Your task to perform on an android device: What is the news today? Image 0: 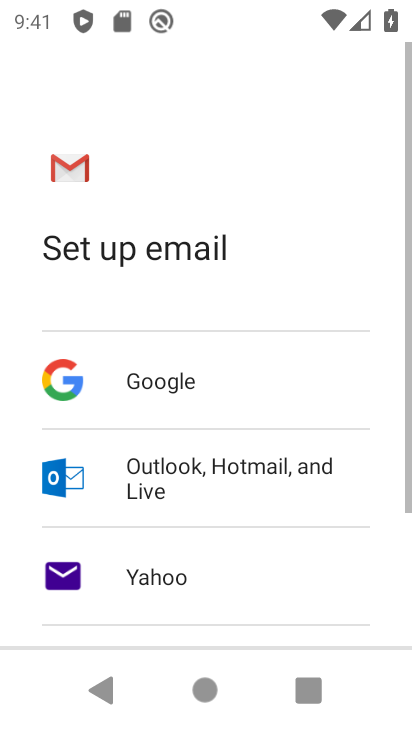
Step 0: press back button
Your task to perform on an android device: What is the news today? Image 1: 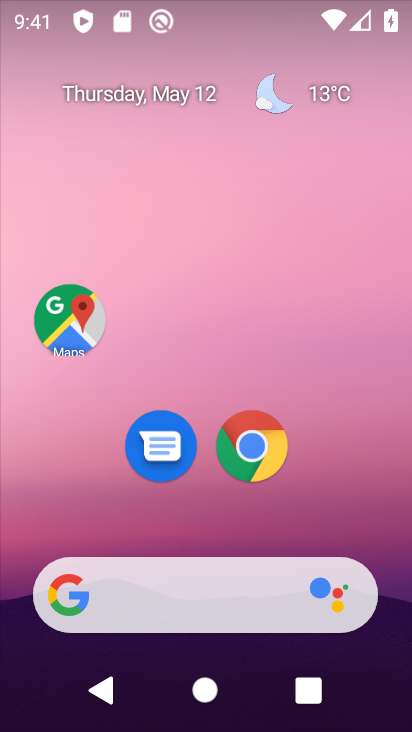
Step 1: drag from (264, 513) to (325, 44)
Your task to perform on an android device: What is the news today? Image 2: 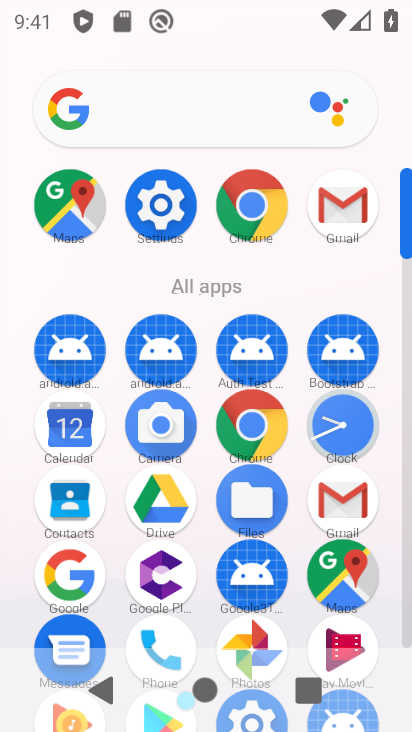
Step 2: click (241, 418)
Your task to perform on an android device: What is the news today? Image 3: 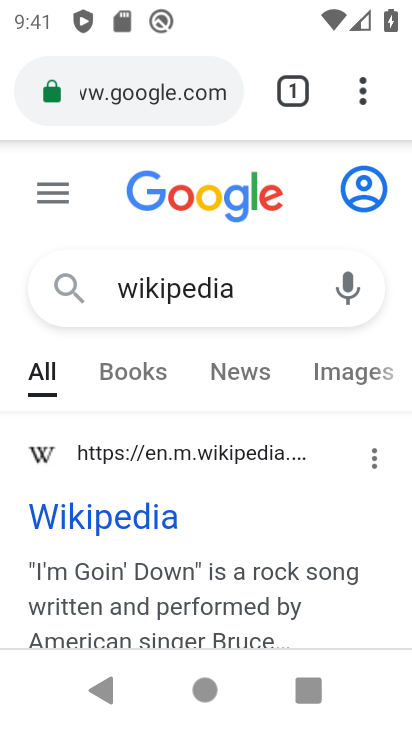
Step 3: click (212, 109)
Your task to perform on an android device: What is the news today? Image 4: 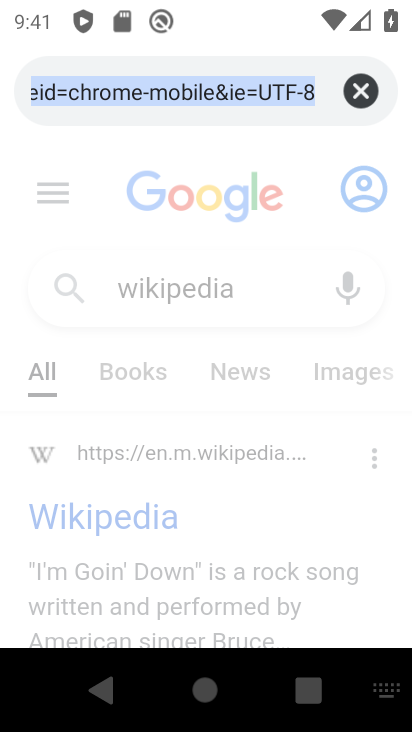
Step 4: click (355, 89)
Your task to perform on an android device: What is the news today? Image 5: 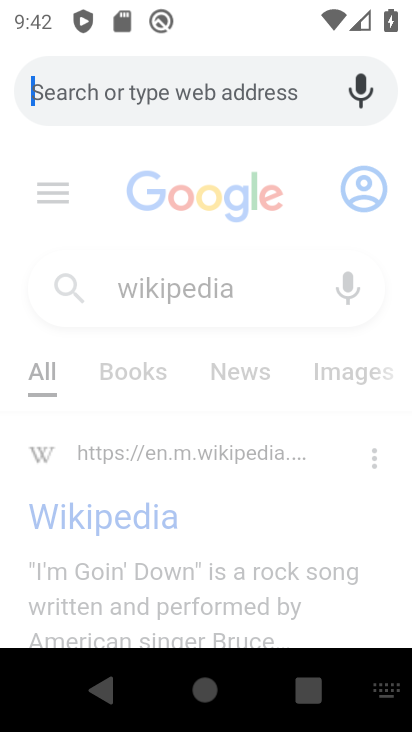
Step 5: type "news today"
Your task to perform on an android device: What is the news today? Image 6: 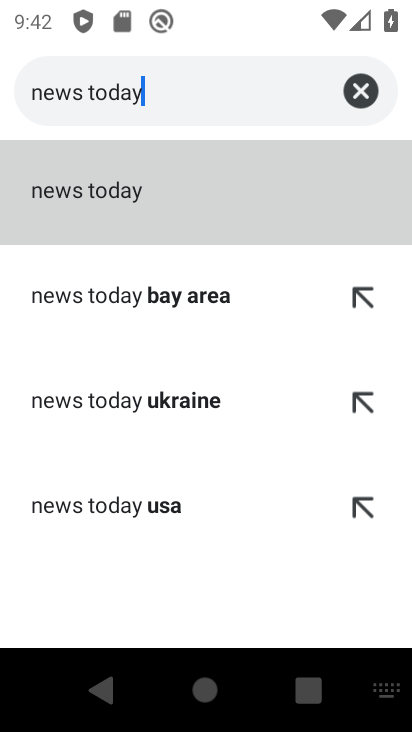
Step 6: click (130, 205)
Your task to perform on an android device: What is the news today? Image 7: 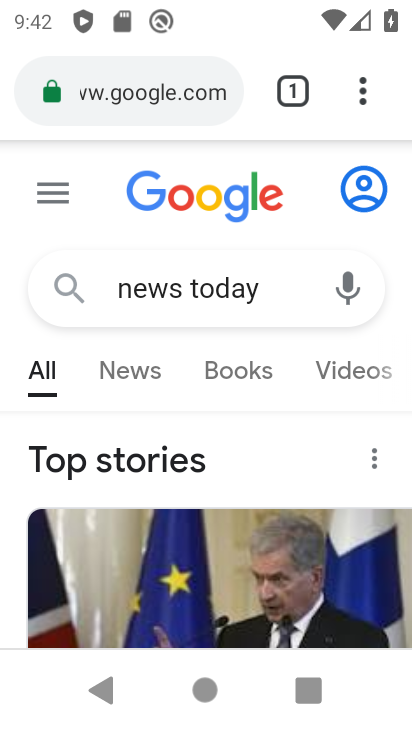
Step 7: task complete